Your task to perform on an android device: Open the calendar app, open the side menu, and click the "Day" option Image 0: 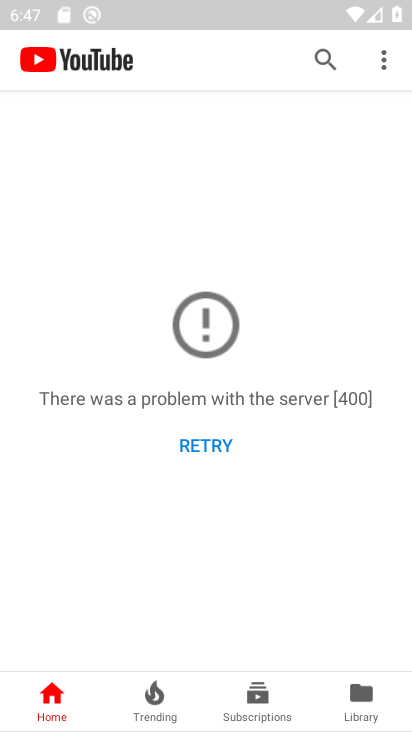
Step 0: press back button
Your task to perform on an android device: Open the calendar app, open the side menu, and click the "Day" option Image 1: 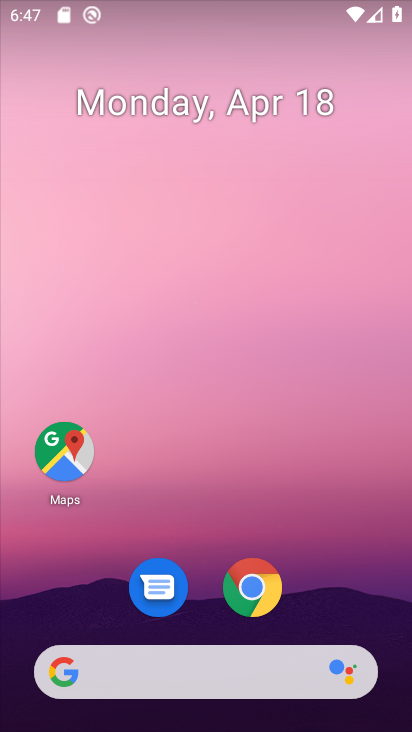
Step 1: drag from (378, 573) to (269, 94)
Your task to perform on an android device: Open the calendar app, open the side menu, and click the "Day" option Image 2: 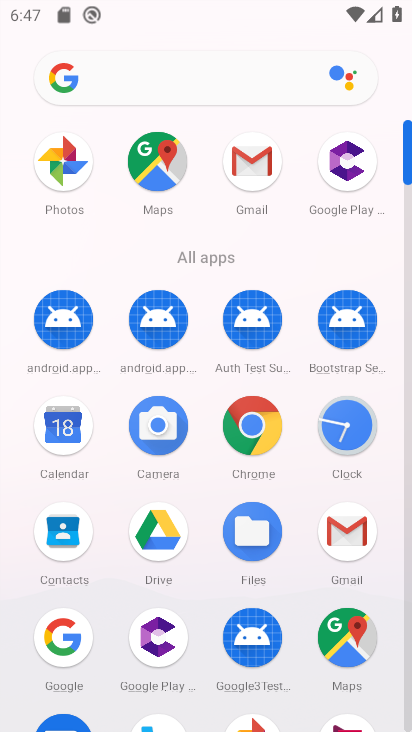
Step 2: click (65, 444)
Your task to perform on an android device: Open the calendar app, open the side menu, and click the "Day" option Image 3: 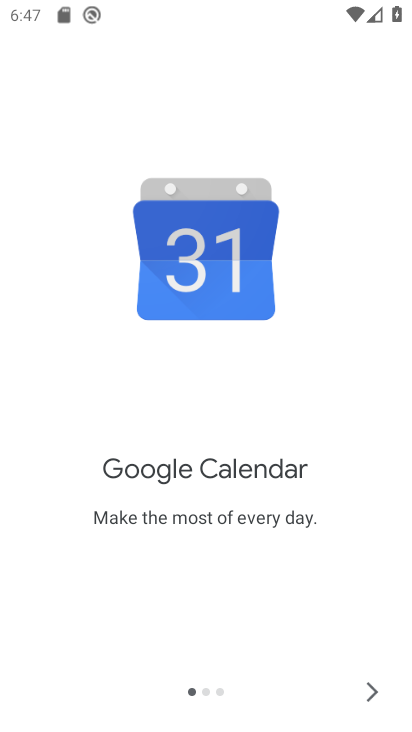
Step 3: click (370, 703)
Your task to perform on an android device: Open the calendar app, open the side menu, and click the "Day" option Image 4: 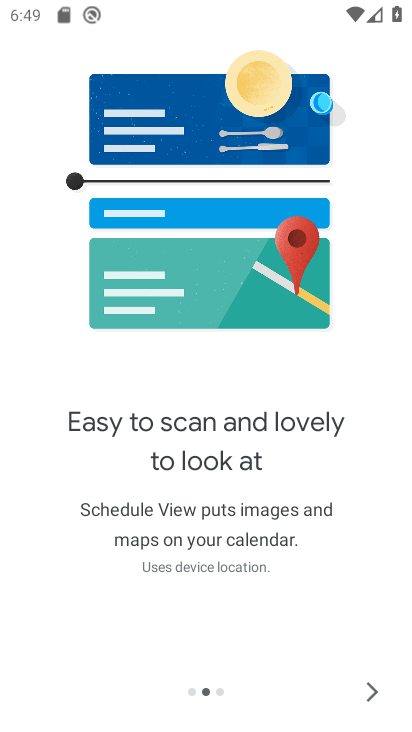
Step 4: click (370, 703)
Your task to perform on an android device: Open the calendar app, open the side menu, and click the "Day" option Image 5: 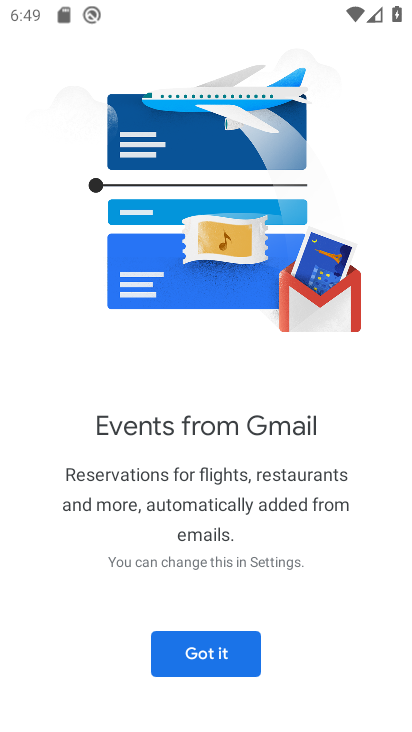
Step 5: click (194, 658)
Your task to perform on an android device: Open the calendar app, open the side menu, and click the "Day" option Image 6: 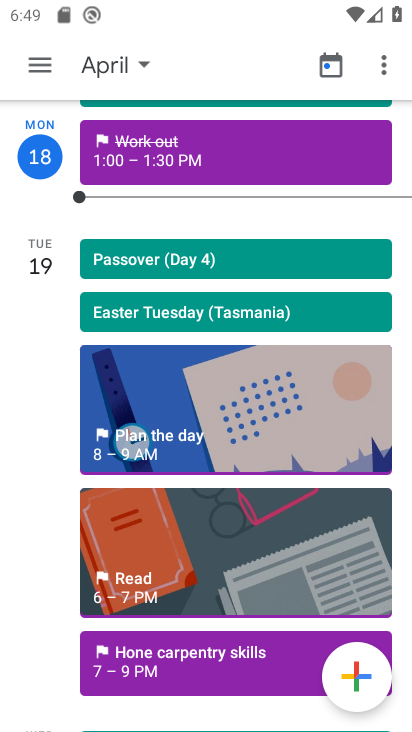
Step 6: click (44, 76)
Your task to perform on an android device: Open the calendar app, open the side menu, and click the "Day" option Image 7: 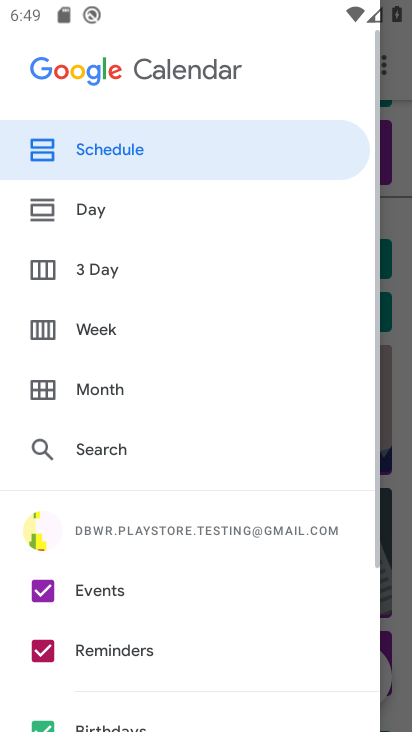
Step 7: click (92, 206)
Your task to perform on an android device: Open the calendar app, open the side menu, and click the "Day" option Image 8: 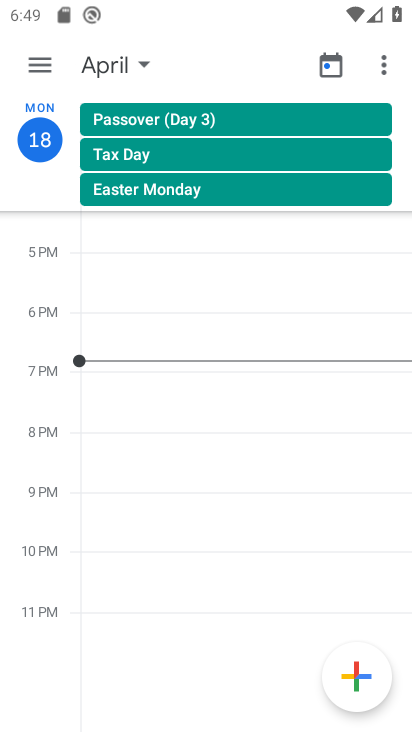
Step 8: task complete